Your task to perform on an android device: Play the last video I watched on Youtube Image 0: 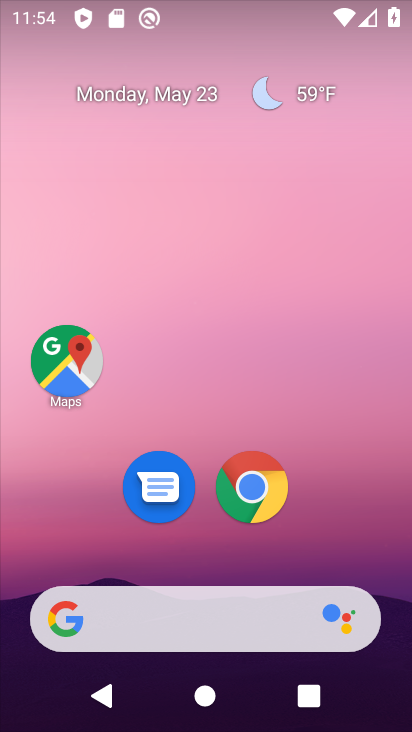
Step 0: drag from (237, 571) to (260, 4)
Your task to perform on an android device: Play the last video I watched on Youtube Image 1: 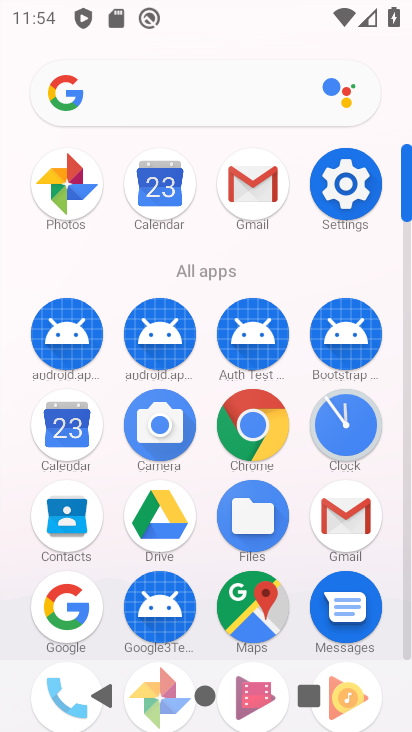
Step 1: drag from (202, 483) to (202, 222)
Your task to perform on an android device: Play the last video I watched on Youtube Image 2: 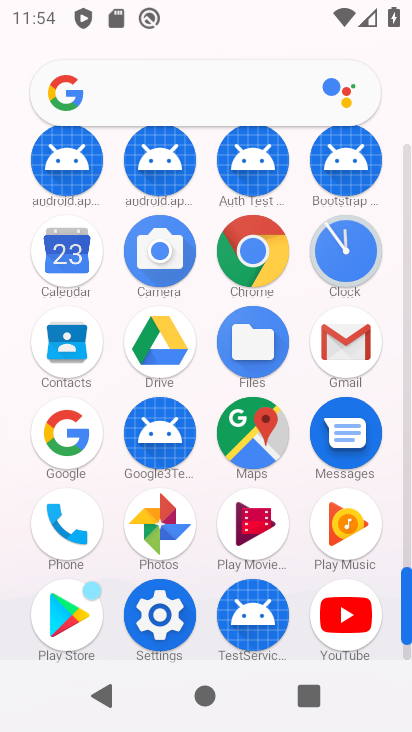
Step 2: click (326, 613)
Your task to perform on an android device: Play the last video I watched on Youtube Image 3: 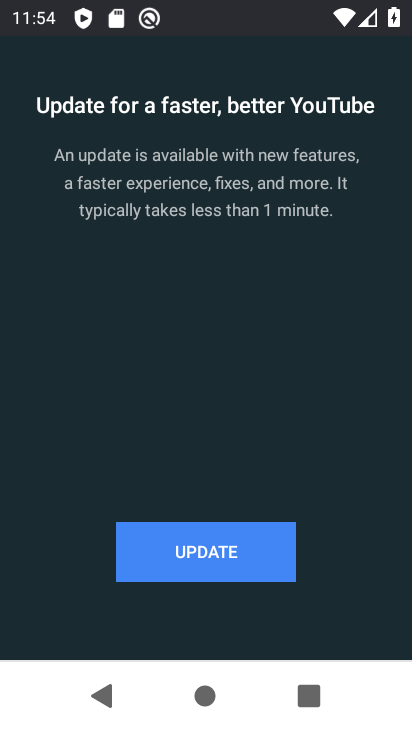
Step 3: click (230, 558)
Your task to perform on an android device: Play the last video I watched on Youtube Image 4: 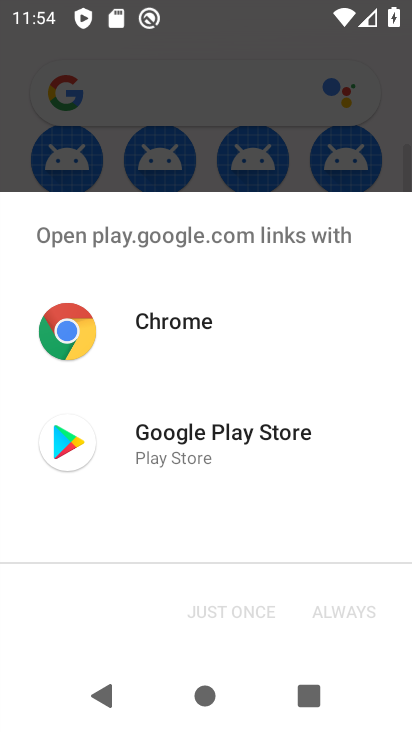
Step 4: click (114, 470)
Your task to perform on an android device: Play the last video I watched on Youtube Image 5: 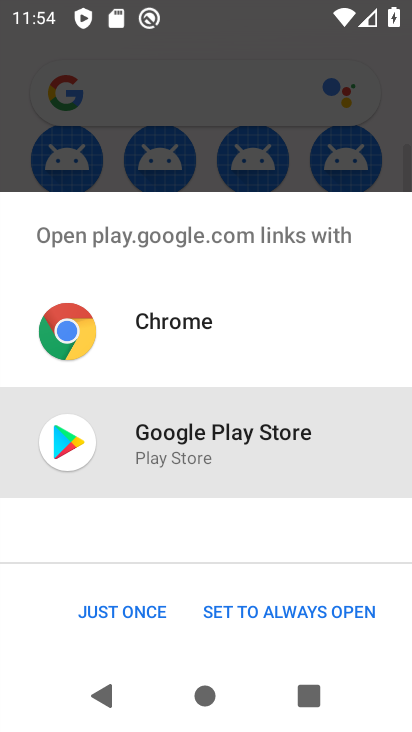
Step 5: click (78, 610)
Your task to perform on an android device: Play the last video I watched on Youtube Image 6: 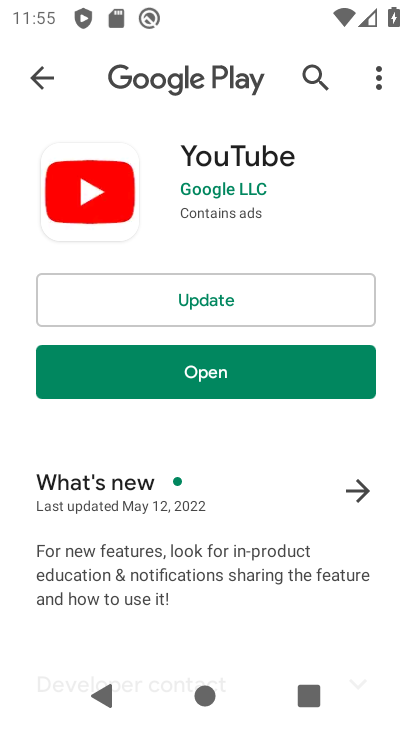
Step 6: click (209, 297)
Your task to perform on an android device: Play the last video I watched on Youtube Image 7: 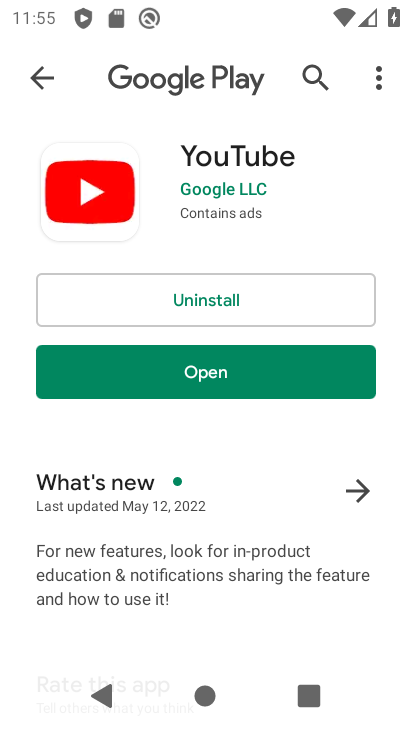
Step 7: click (262, 383)
Your task to perform on an android device: Play the last video I watched on Youtube Image 8: 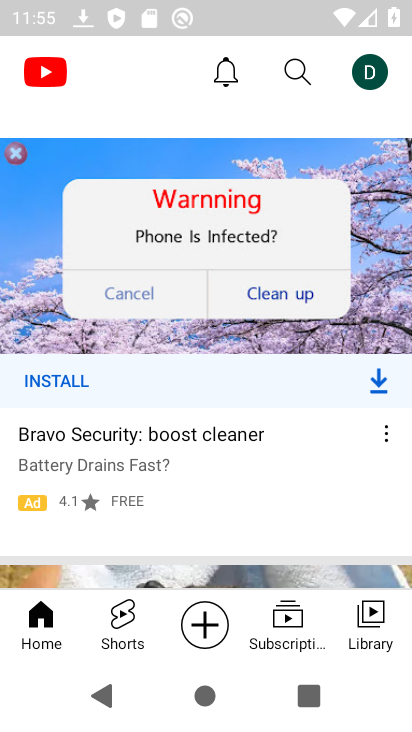
Step 8: click (356, 633)
Your task to perform on an android device: Play the last video I watched on Youtube Image 9: 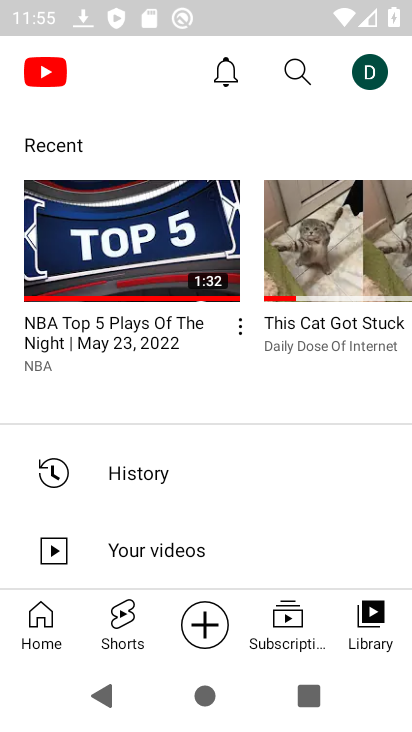
Step 9: click (65, 277)
Your task to perform on an android device: Play the last video I watched on Youtube Image 10: 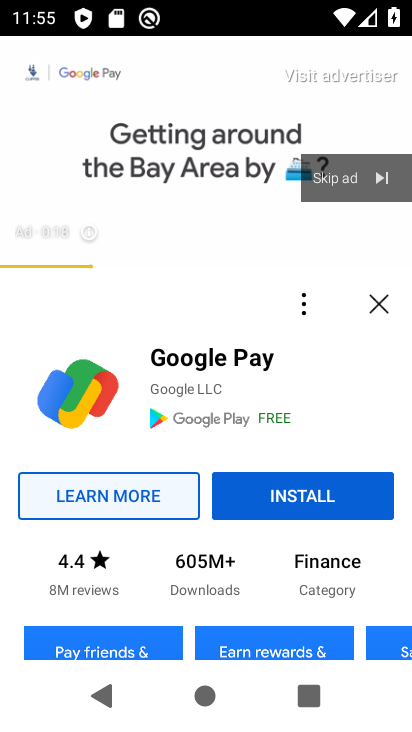
Step 10: task complete